Your task to perform on an android device: Go to wifi settings Image 0: 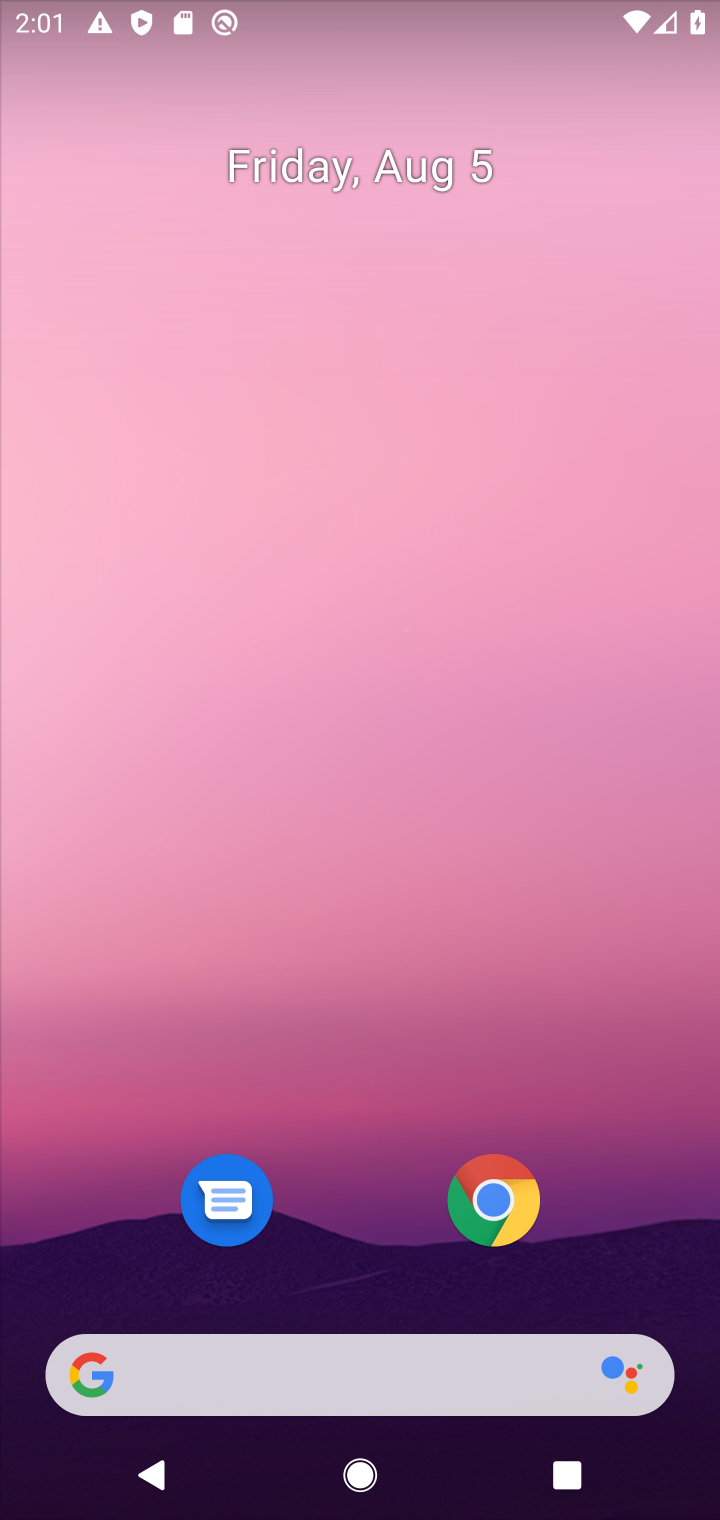
Step 0: drag from (330, 1131) to (235, 345)
Your task to perform on an android device: Go to wifi settings Image 1: 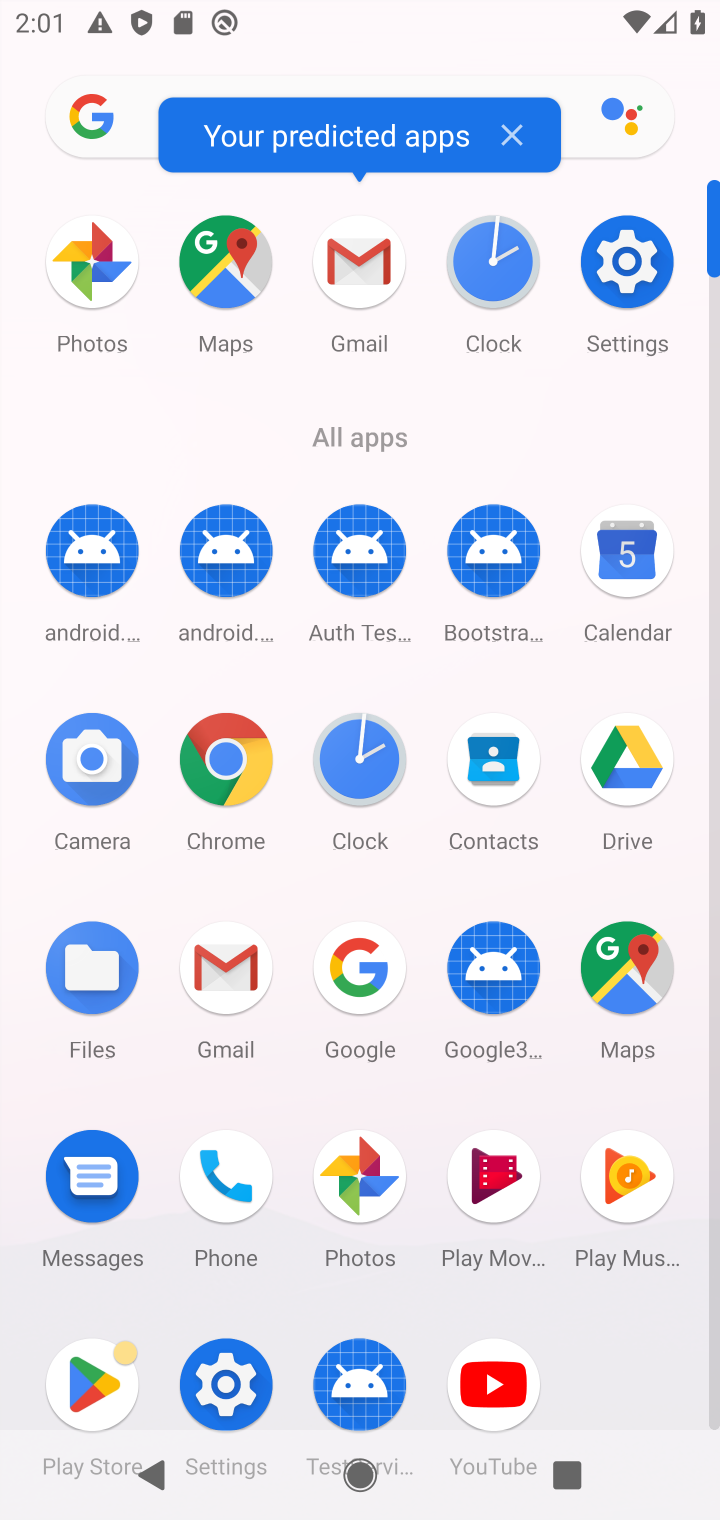
Step 1: click (586, 304)
Your task to perform on an android device: Go to wifi settings Image 2: 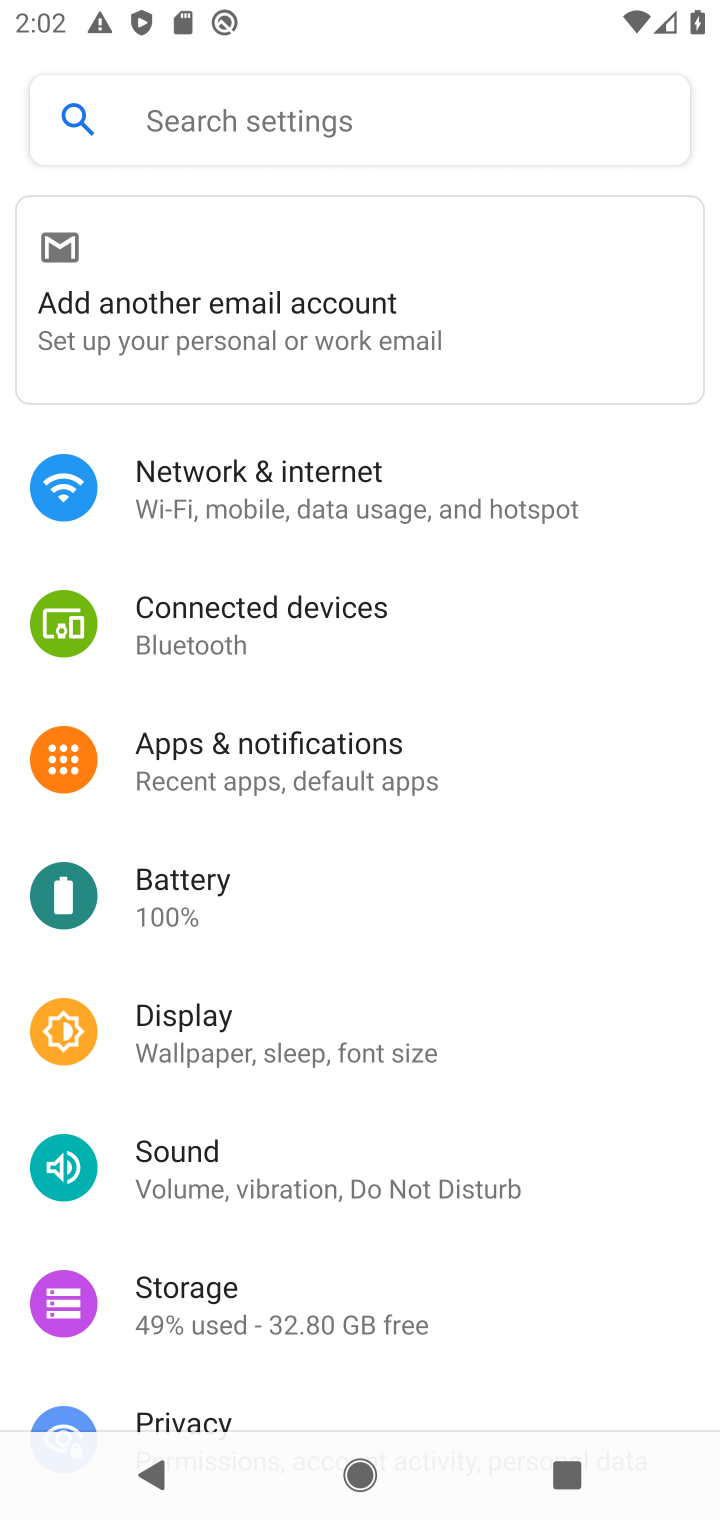
Step 2: click (303, 478)
Your task to perform on an android device: Go to wifi settings Image 3: 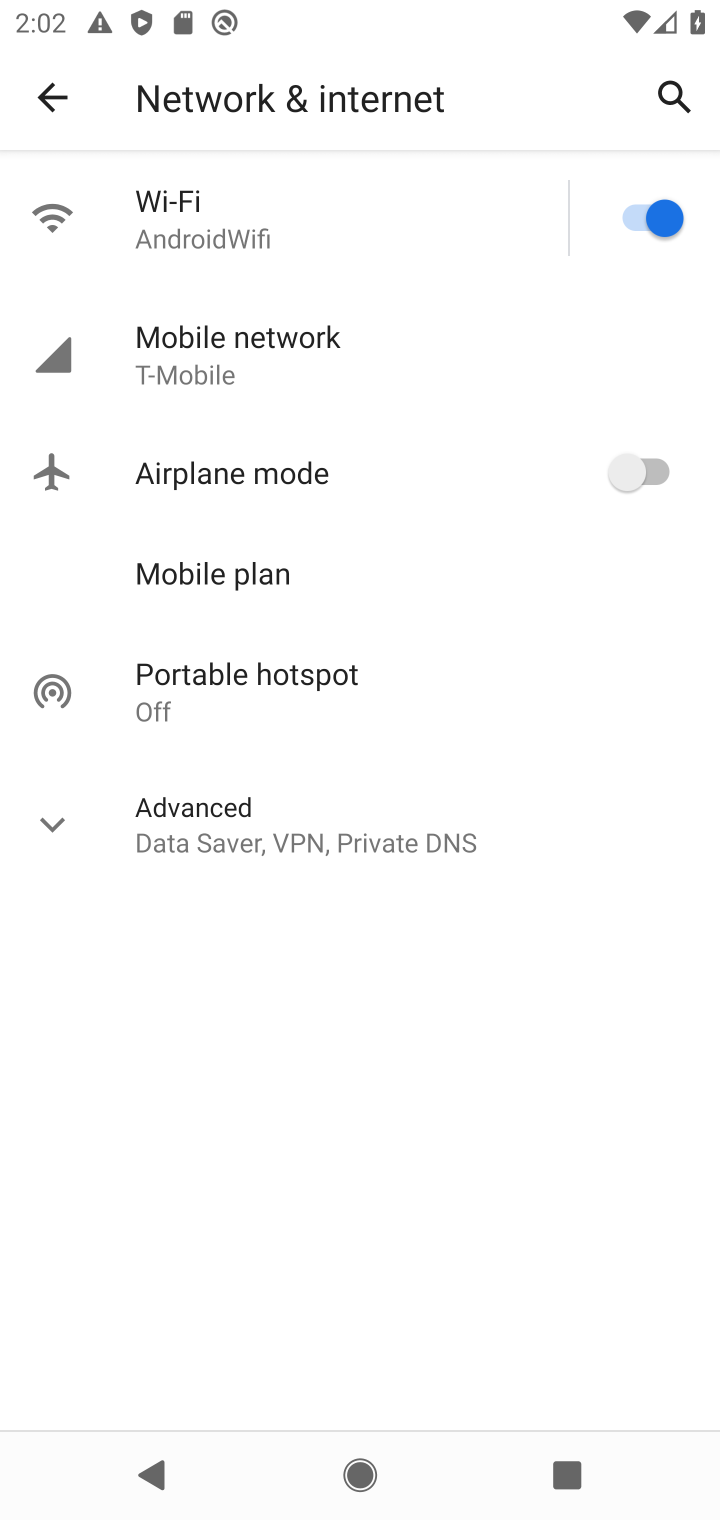
Step 3: click (246, 213)
Your task to perform on an android device: Go to wifi settings Image 4: 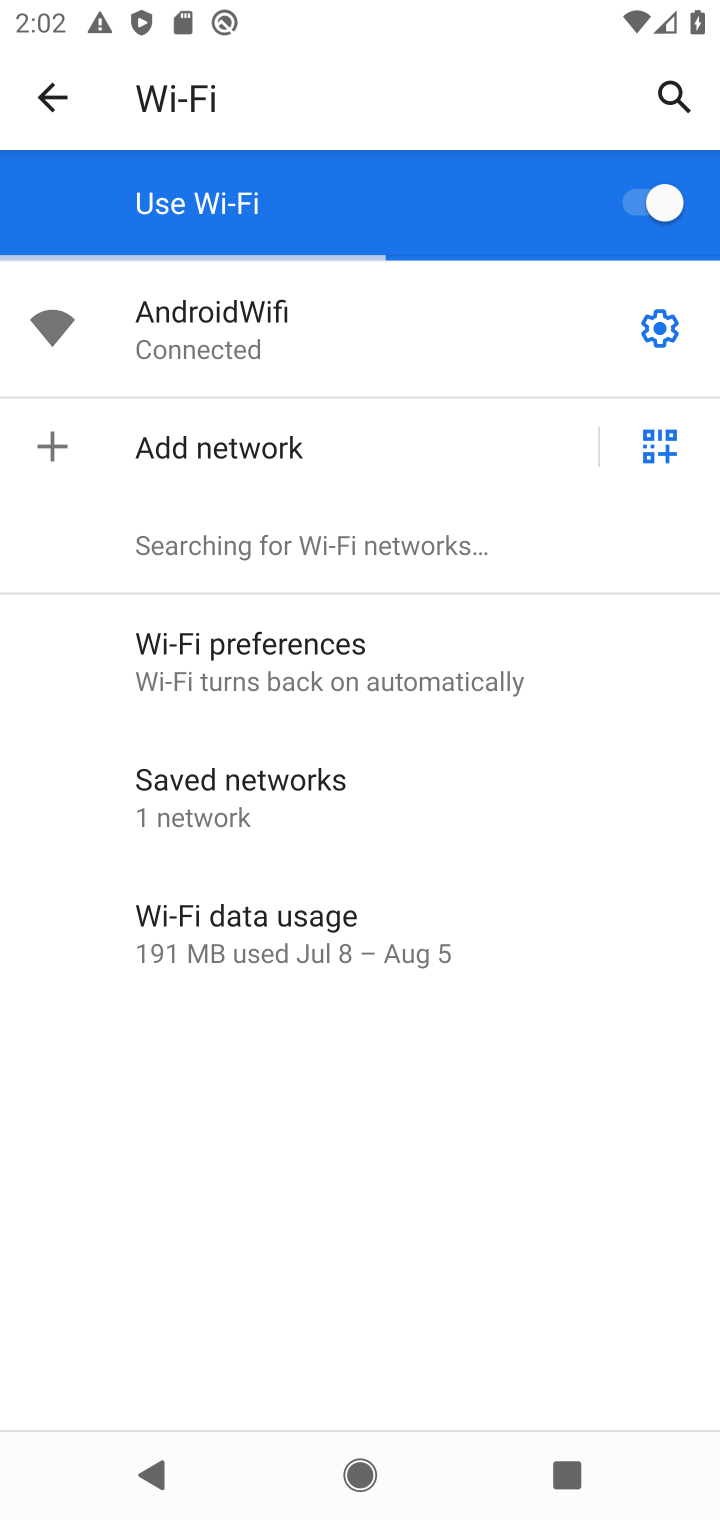
Step 4: task complete